Your task to perform on an android device: Open Google Chrome and open the bookmarks view Image 0: 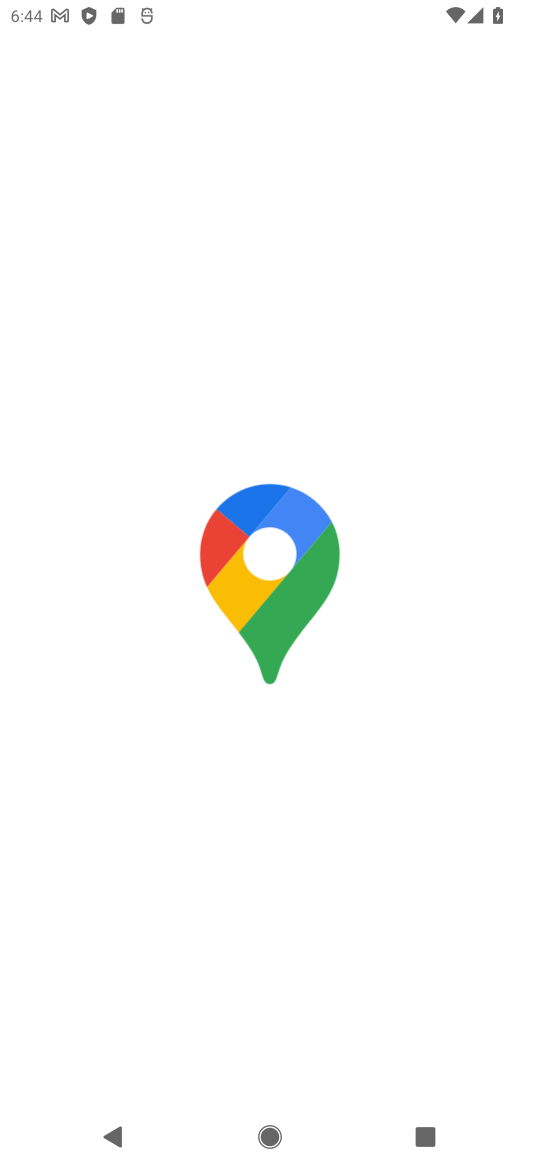
Step 0: press home button
Your task to perform on an android device: Open Google Chrome and open the bookmarks view Image 1: 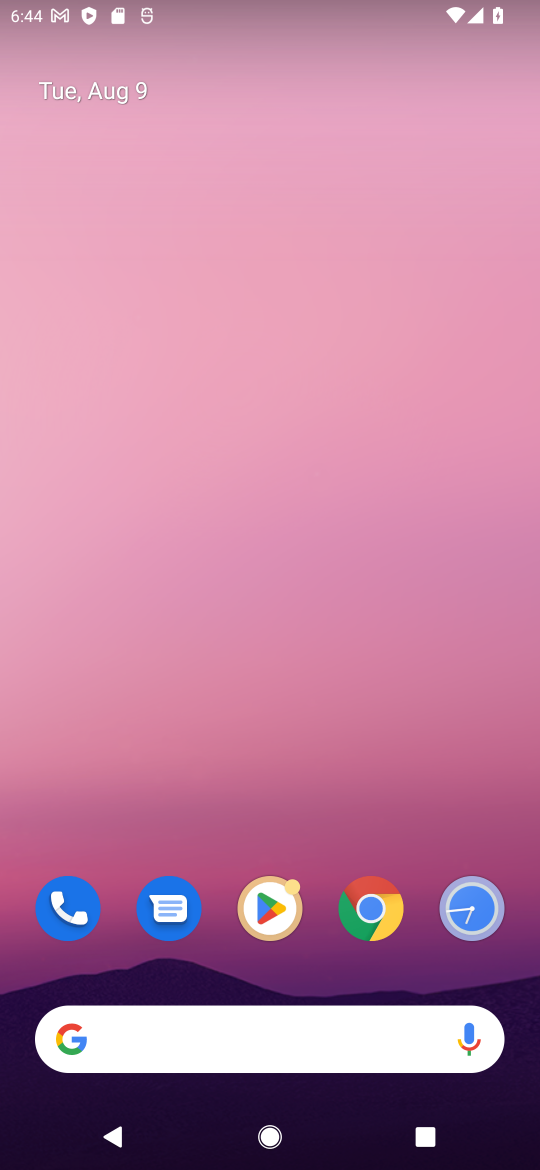
Step 1: drag from (300, 991) to (294, 111)
Your task to perform on an android device: Open Google Chrome and open the bookmarks view Image 2: 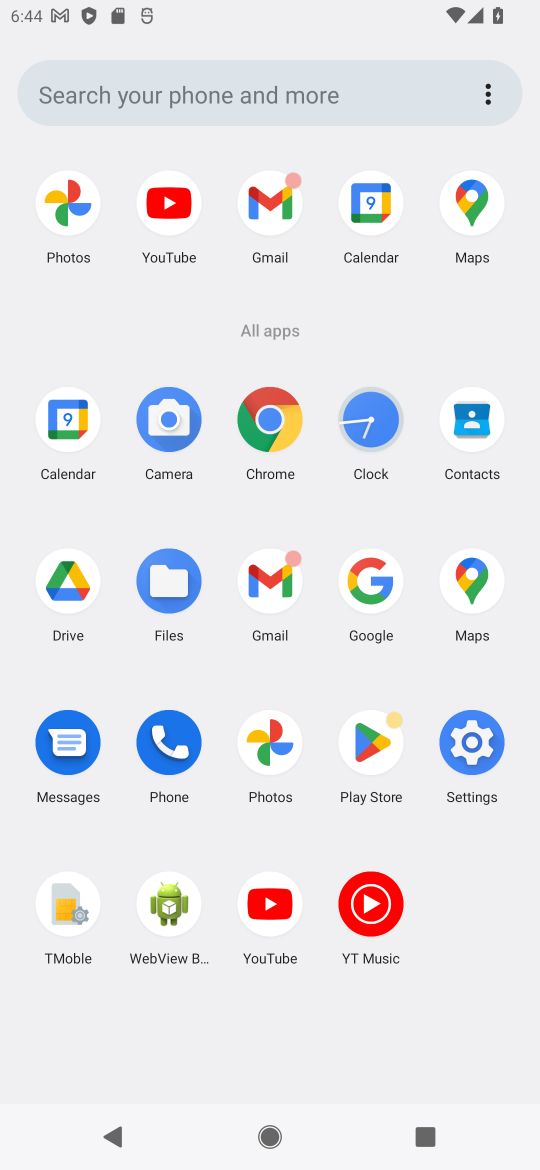
Step 2: click (275, 417)
Your task to perform on an android device: Open Google Chrome and open the bookmarks view Image 3: 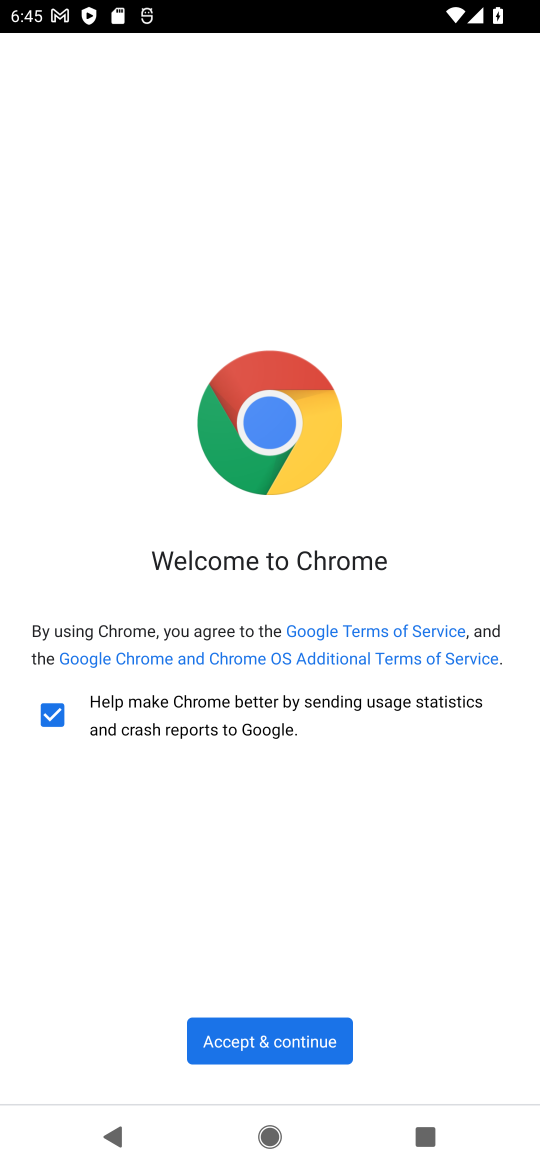
Step 3: click (323, 1030)
Your task to perform on an android device: Open Google Chrome and open the bookmarks view Image 4: 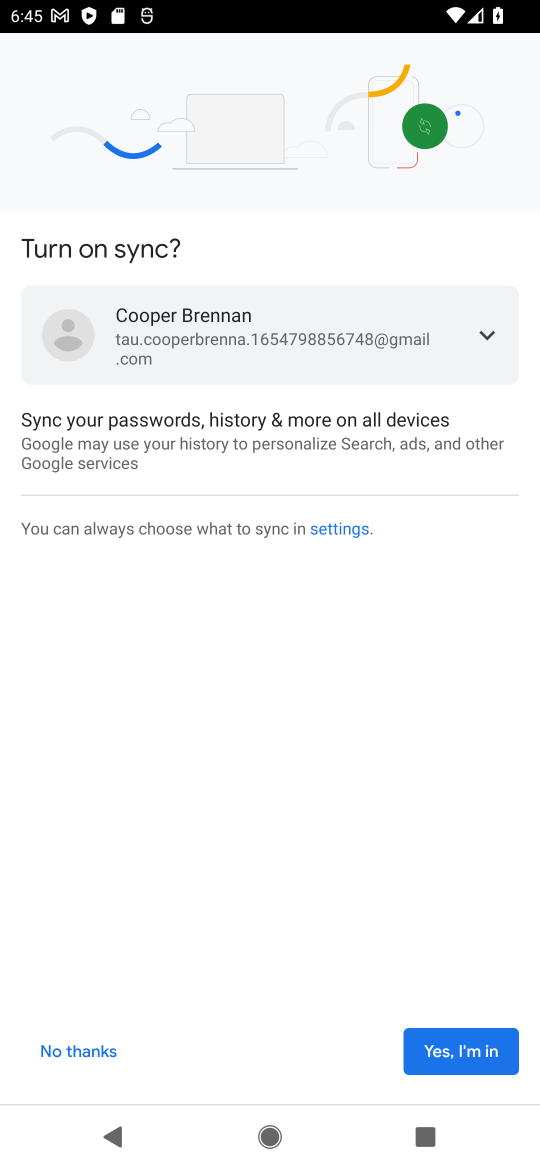
Step 4: click (432, 1044)
Your task to perform on an android device: Open Google Chrome and open the bookmarks view Image 5: 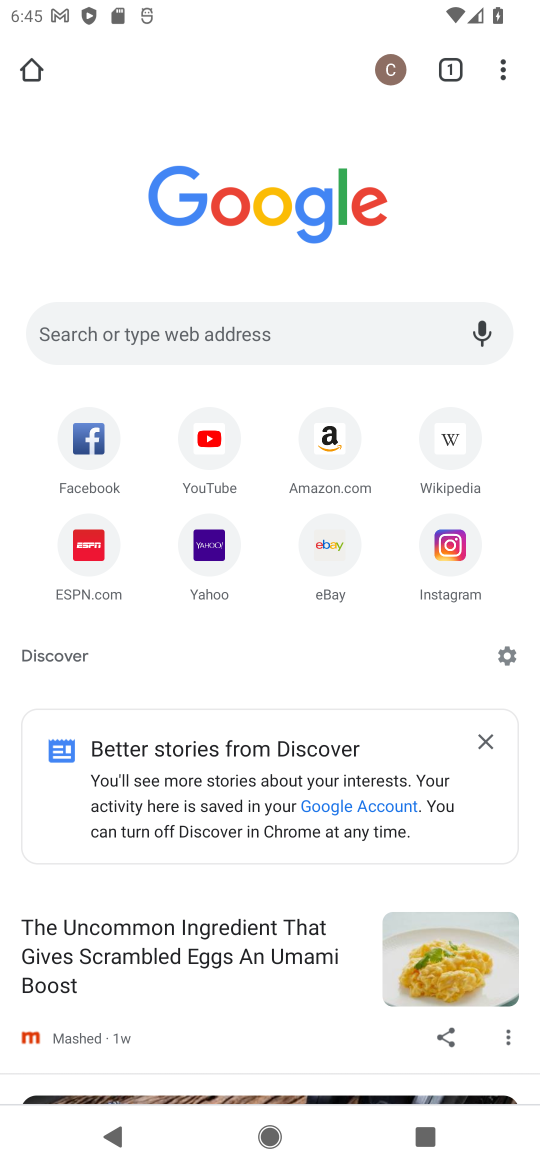
Step 5: click (501, 72)
Your task to perform on an android device: Open Google Chrome and open the bookmarks view Image 6: 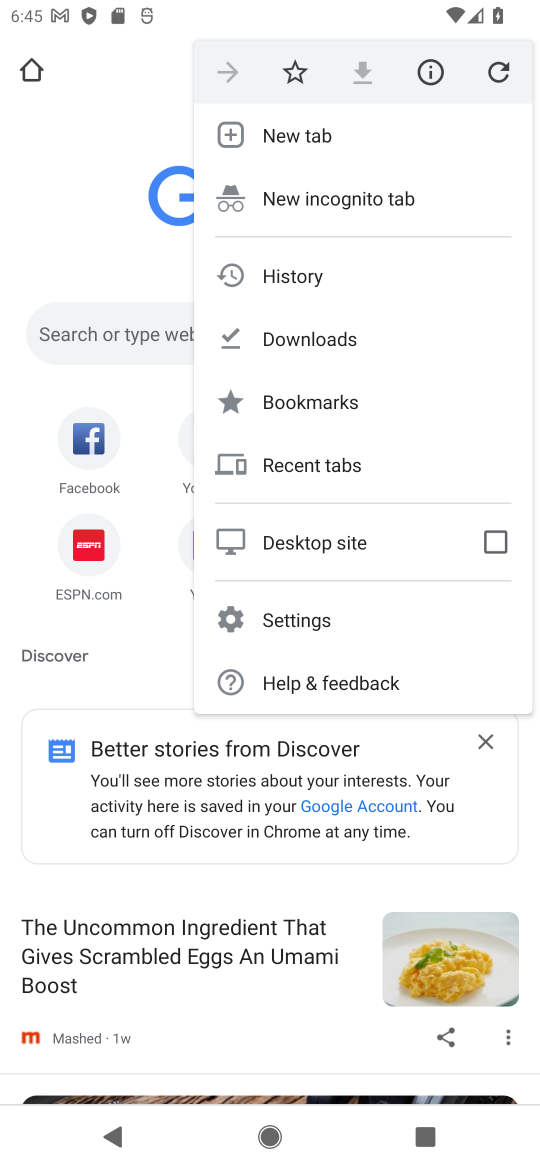
Step 6: click (301, 399)
Your task to perform on an android device: Open Google Chrome and open the bookmarks view Image 7: 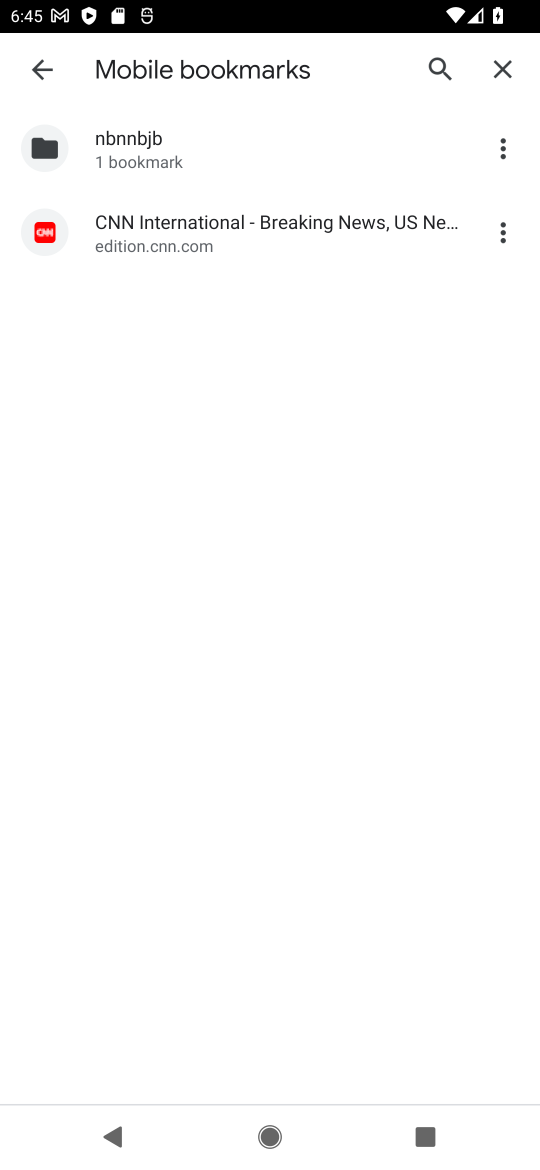
Step 7: task complete